Your task to perform on an android device: change notification settings in the gmail app Image 0: 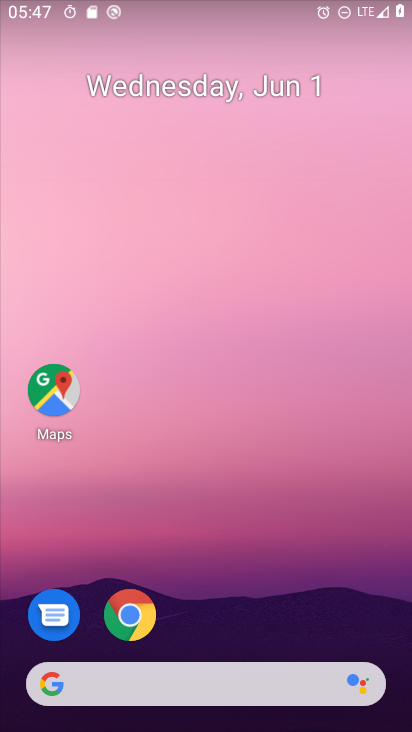
Step 0: drag from (305, 662) to (251, 12)
Your task to perform on an android device: change notification settings in the gmail app Image 1: 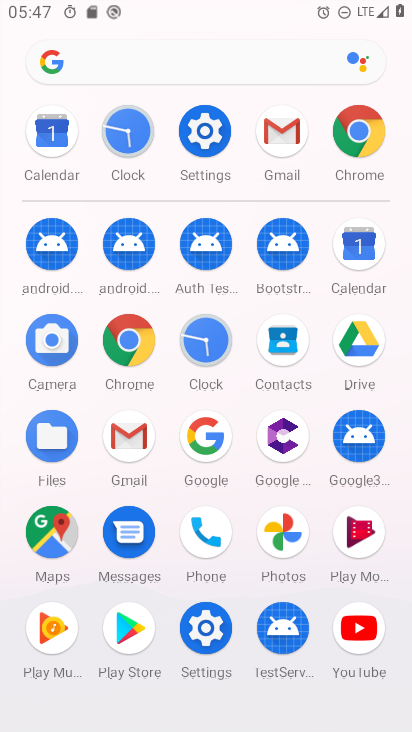
Step 1: click (131, 444)
Your task to perform on an android device: change notification settings in the gmail app Image 2: 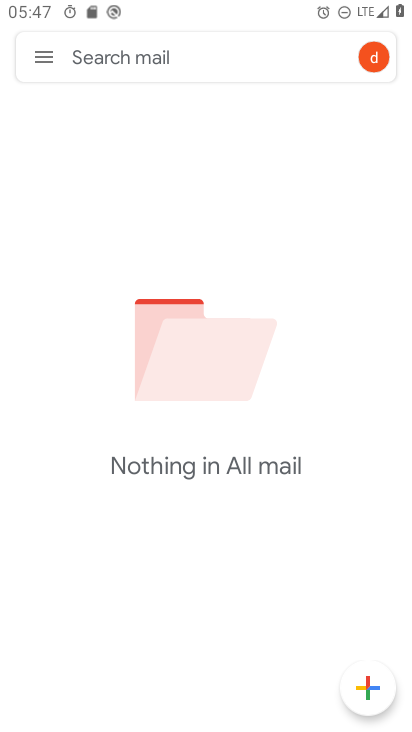
Step 2: click (51, 51)
Your task to perform on an android device: change notification settings in the gmail app Image 3: 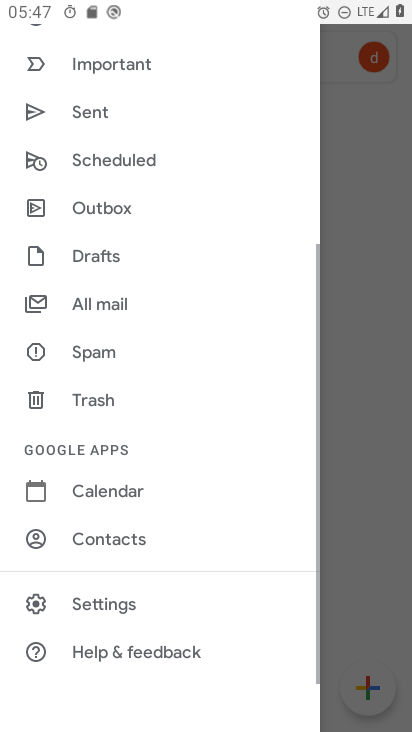
Step 3: click (134, 603)
Your task to perform on an android device: change notification settings in the gmail app Image 4: 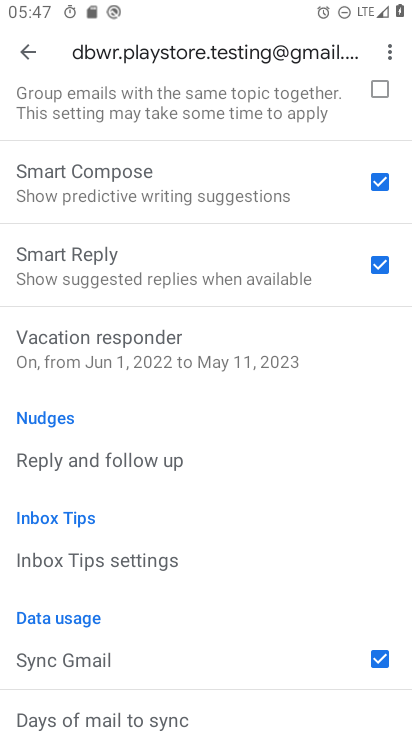
Step 4: drag from (134, 183) to (177, 695)
Your task to perform on an android device: change notification settings in the gmail app Image 5: 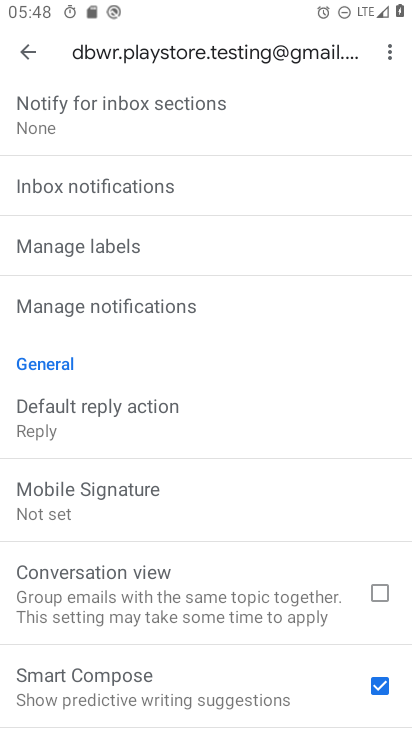
Step 5: click (147, 311)
Your task to perform on an android device: change notification settings in the gmail app Image 6: 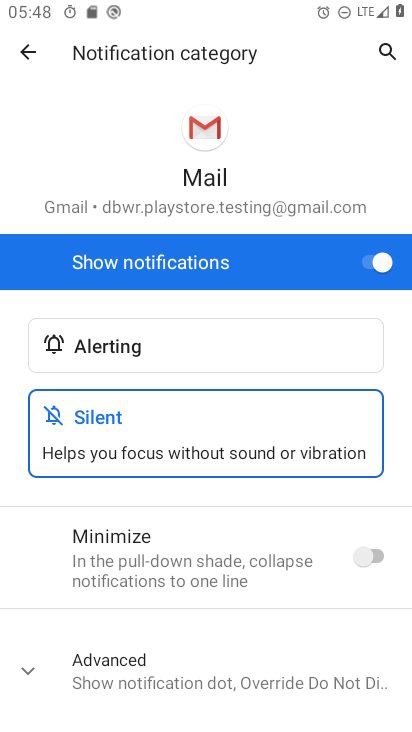
Step 6: click (376, 264)
Your task to perform on an android device: change notification settings in the gmail app Image 7: 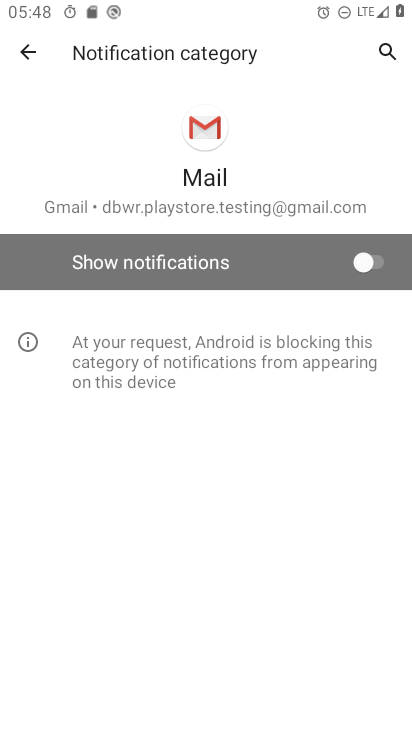
Step 7: task complete